Your task to perform on an android device: Add dell xps to the cart on ebay.com Image 0: 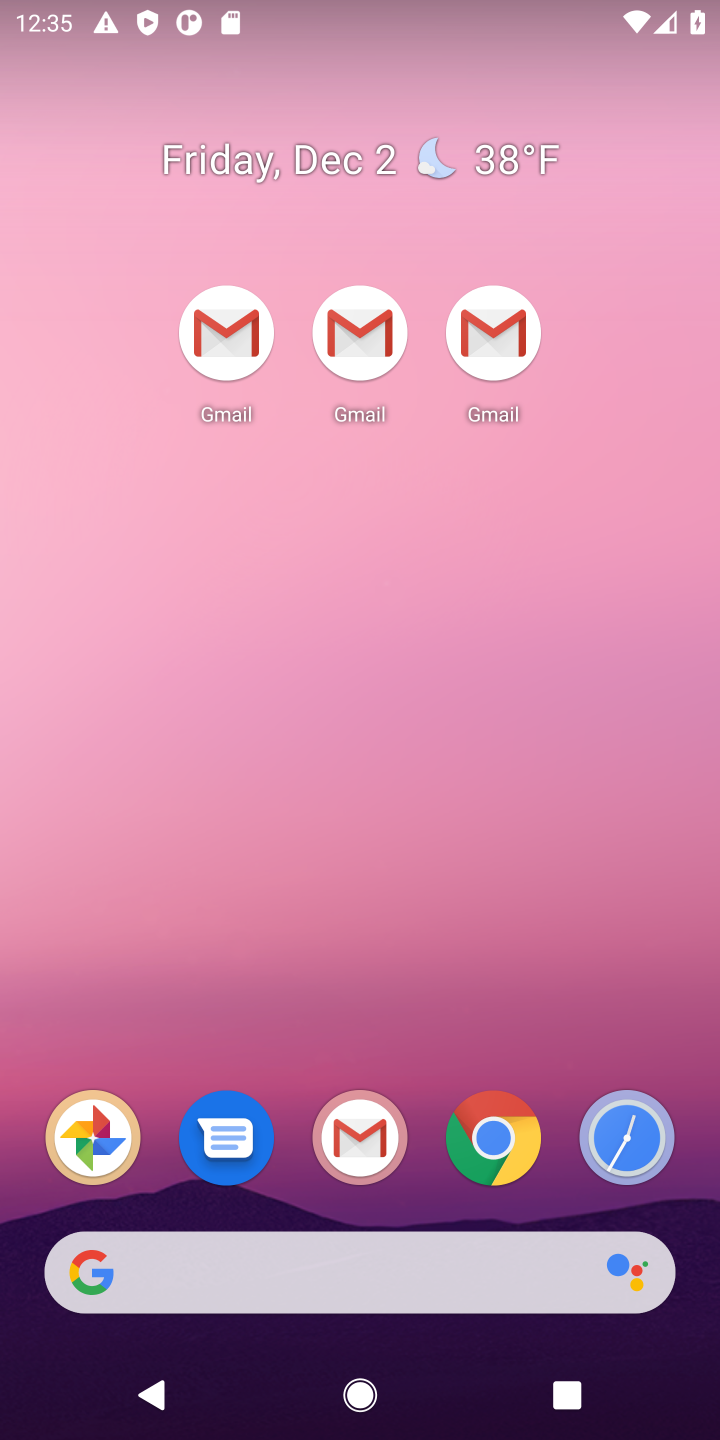
Step 0: drag from (459, 692) to (415, 121)
Your task to perform on an android device: Add dell xps to the cart on ebay.com Image 1: 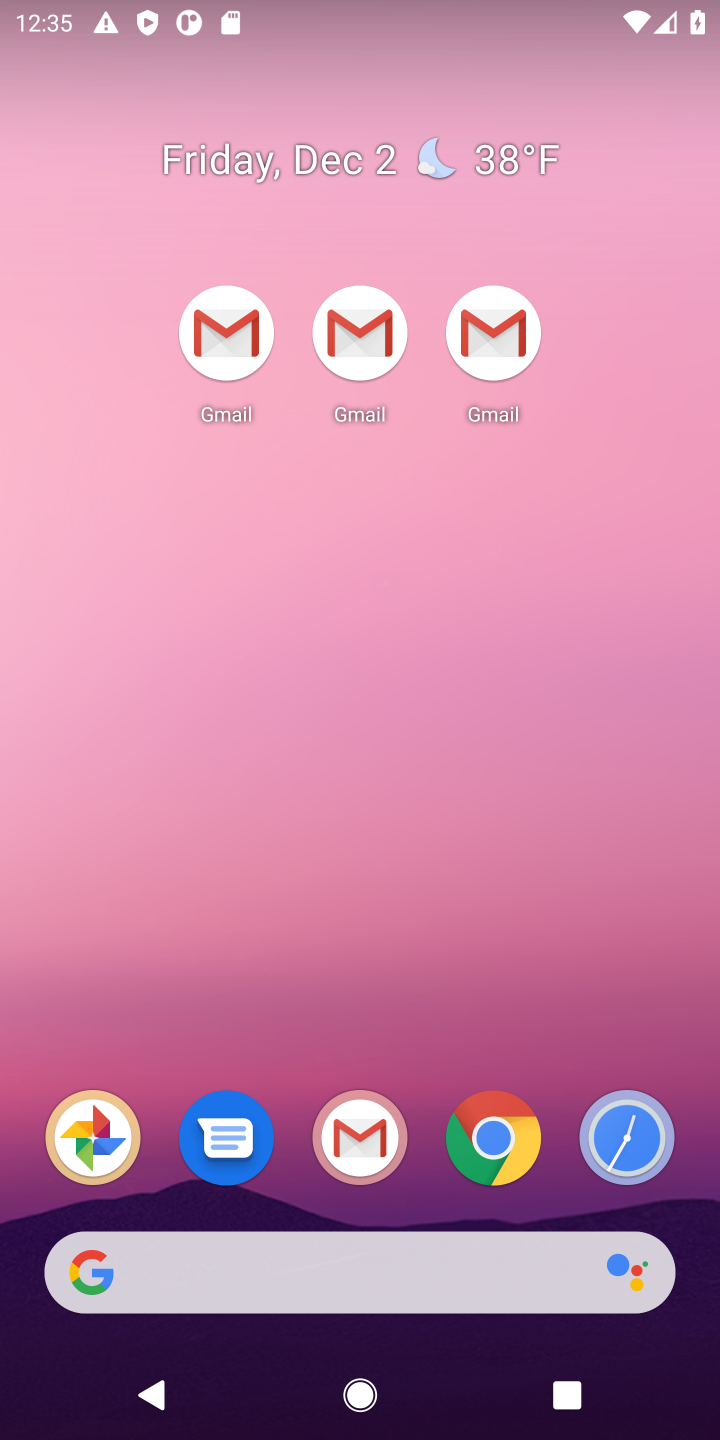
Step 1: drag from (432, 1191) to (432, 145)
Your task to perform on an android device: Add dell xps to the cart on ebay.com Image 2: 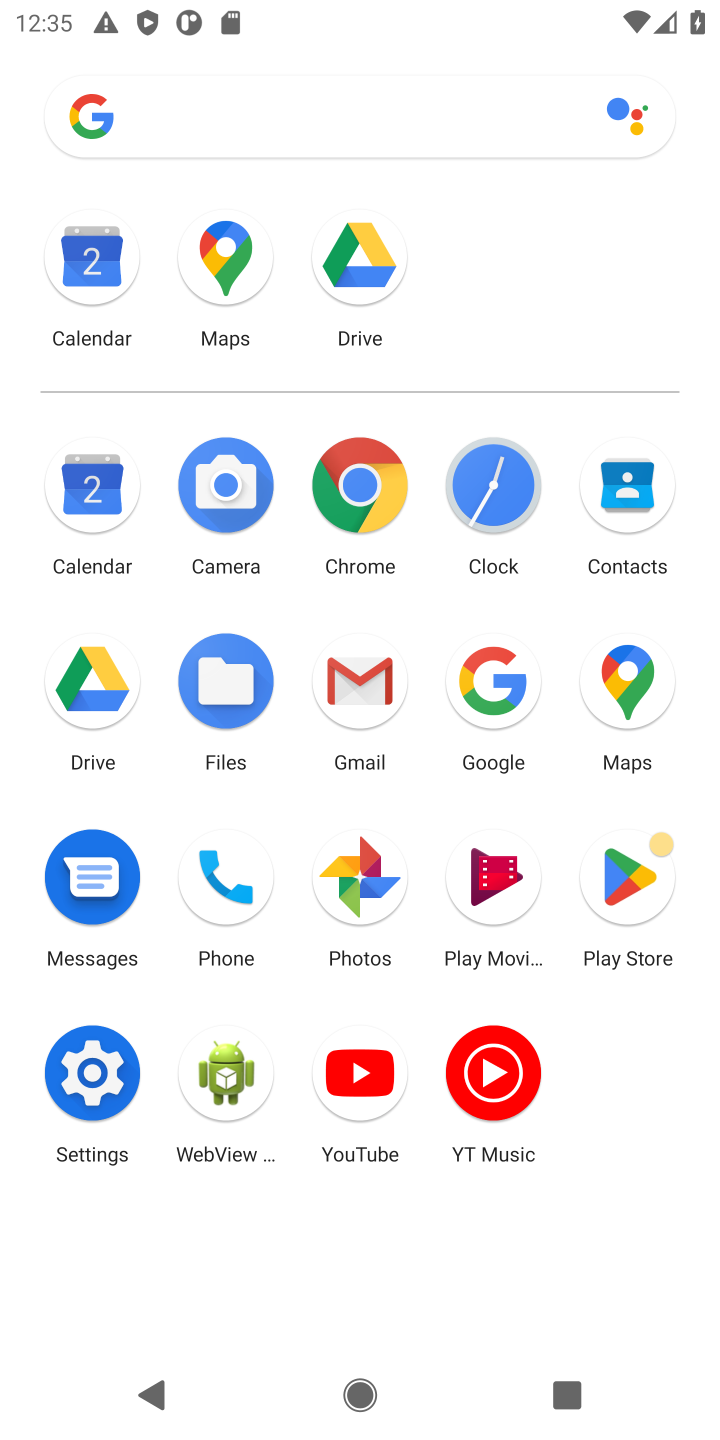
Step 2: click (498, 691)
Your task to perform on an android device: Add dell xps to the cart on ebay.com Image 3: 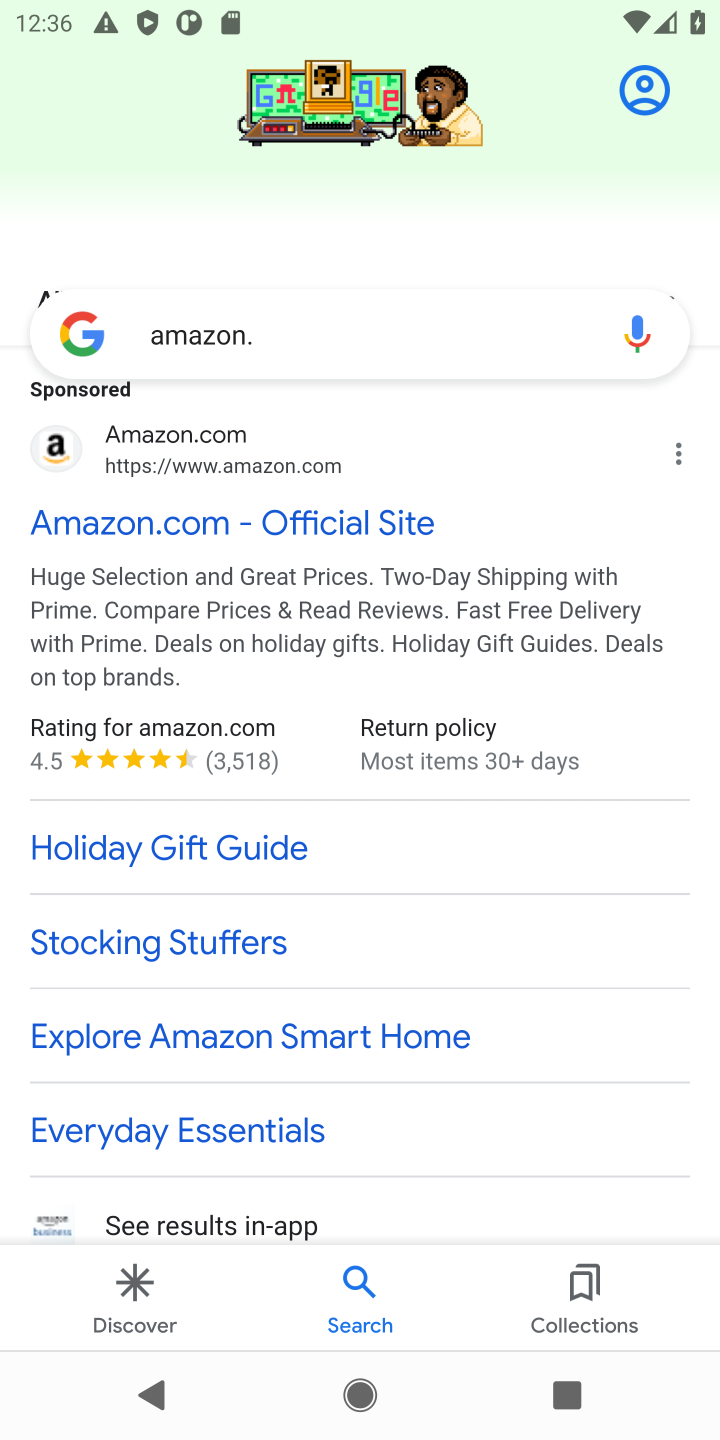
Step 3: click (339, 344)
Your task to perform on an android device: Add dell xps to the cart on ebay.com Image 4: 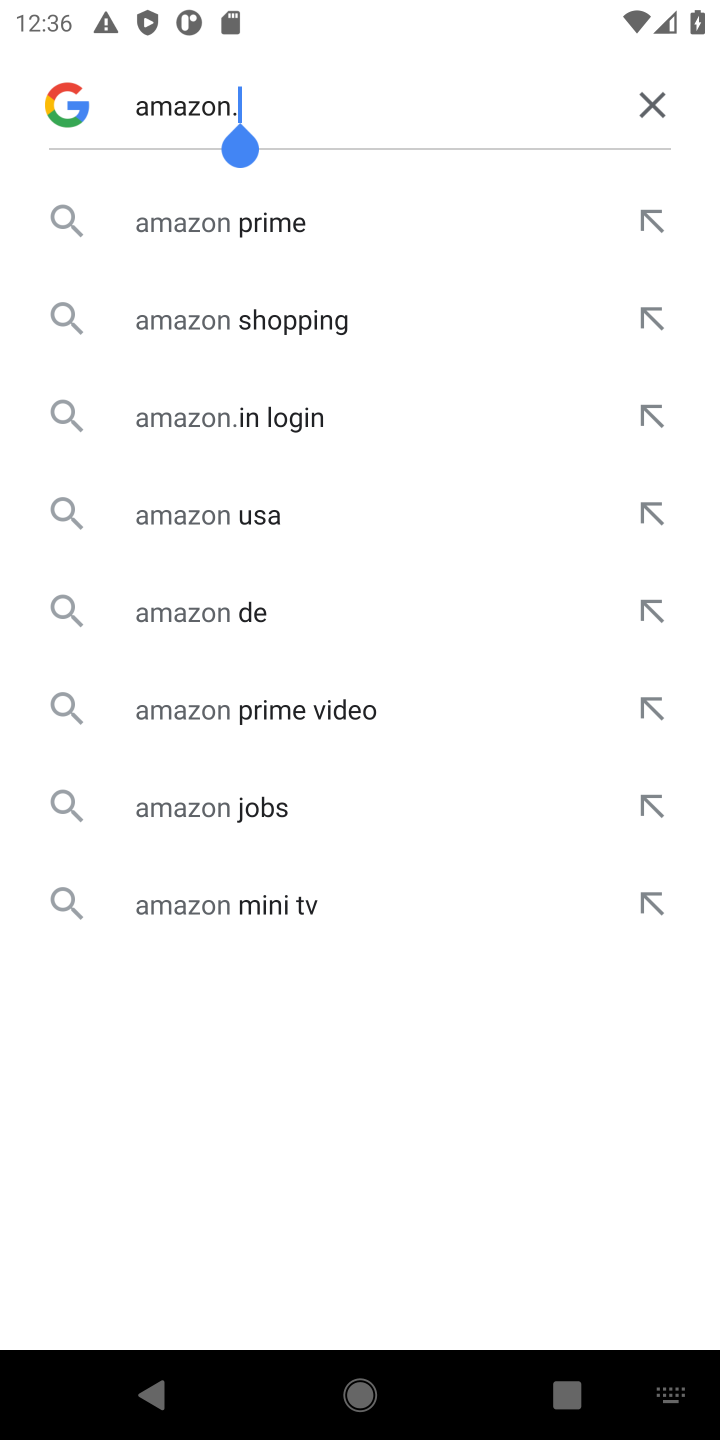
Step 4: click (668, 111)
Your task to perform on an android device: Add dell xps to the cart on ebay.com Image 5: 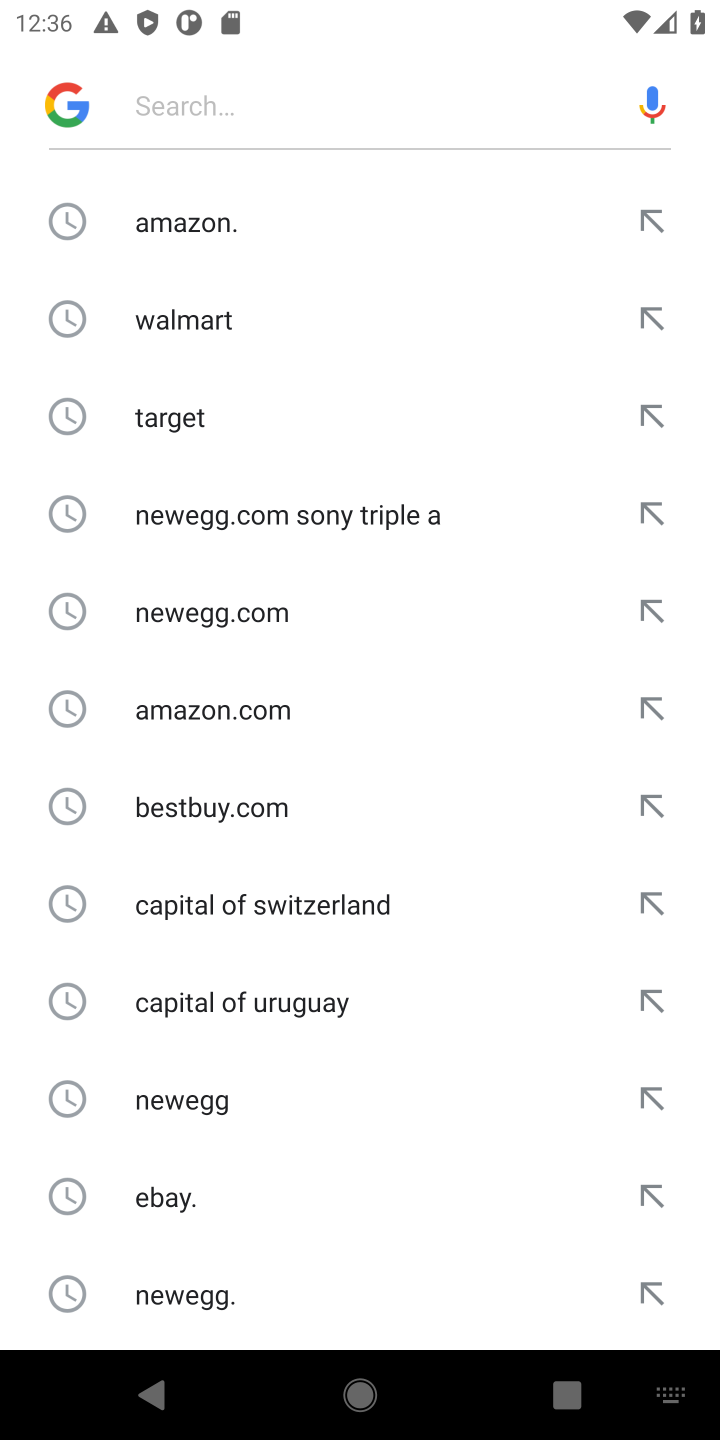
Step 5: type "ebay.com"
Your task to perform on an android device: Add dell xps to the cart on ebay.com Image 6: 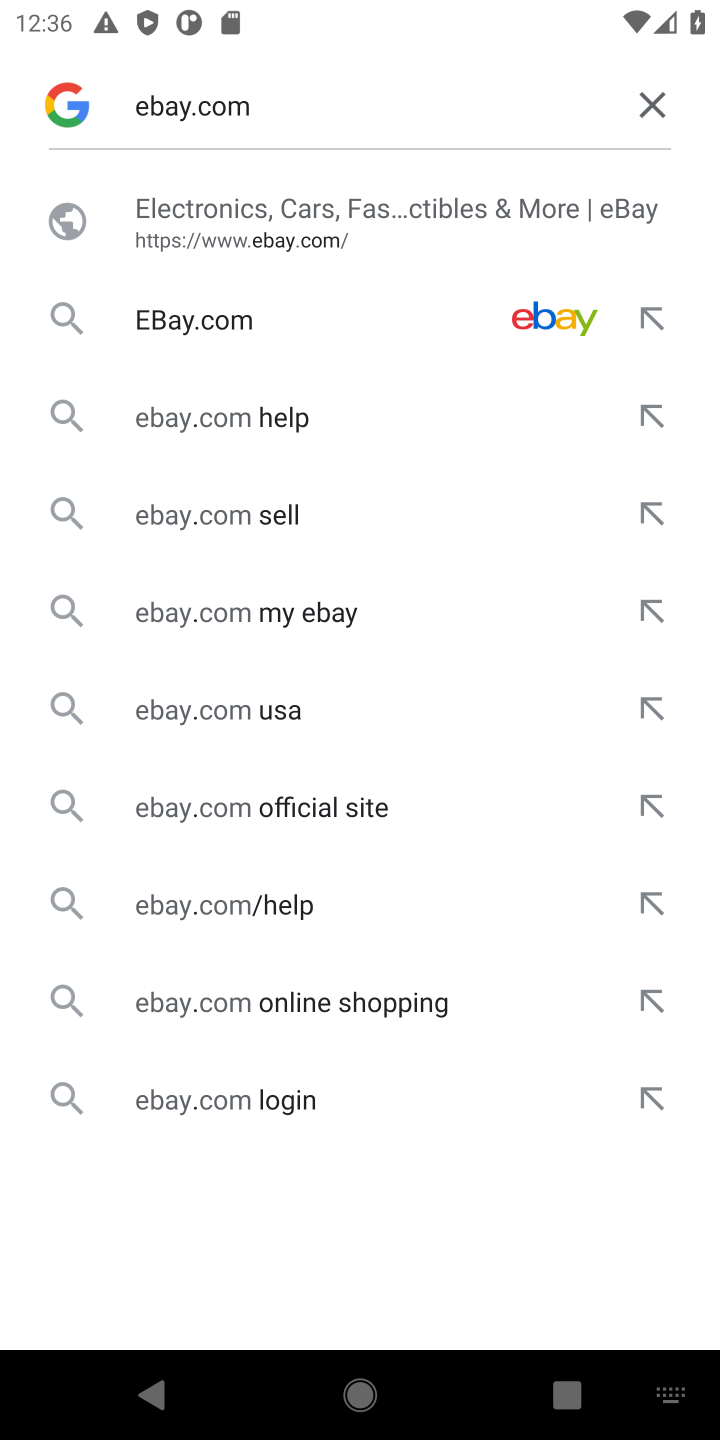
Step 6: click (384, 228)
Your task to perform on an android device: Add dell xps to the cart on ebay.com Image 7: 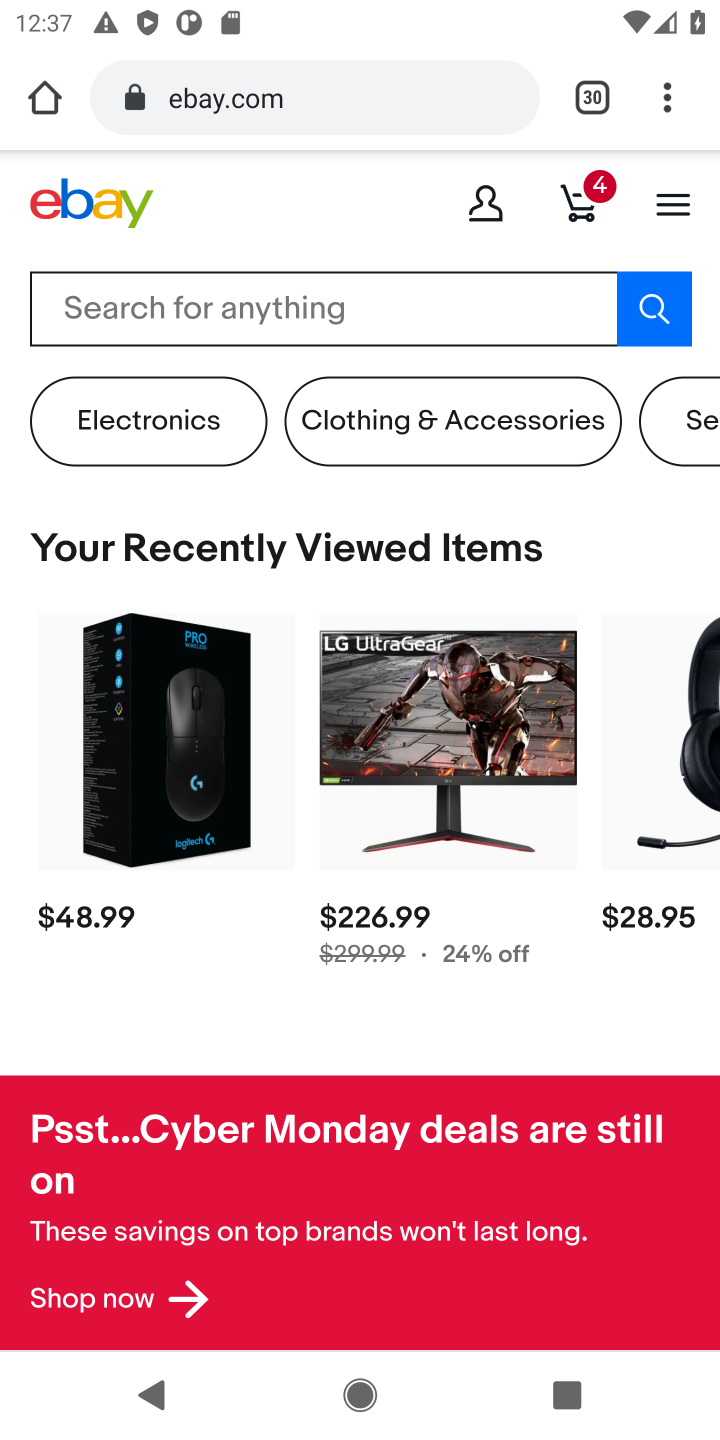
Step 7: click (329, 307)
Your task to perform on an android device: Add dell xps to the cart on ebay.com Image 8: 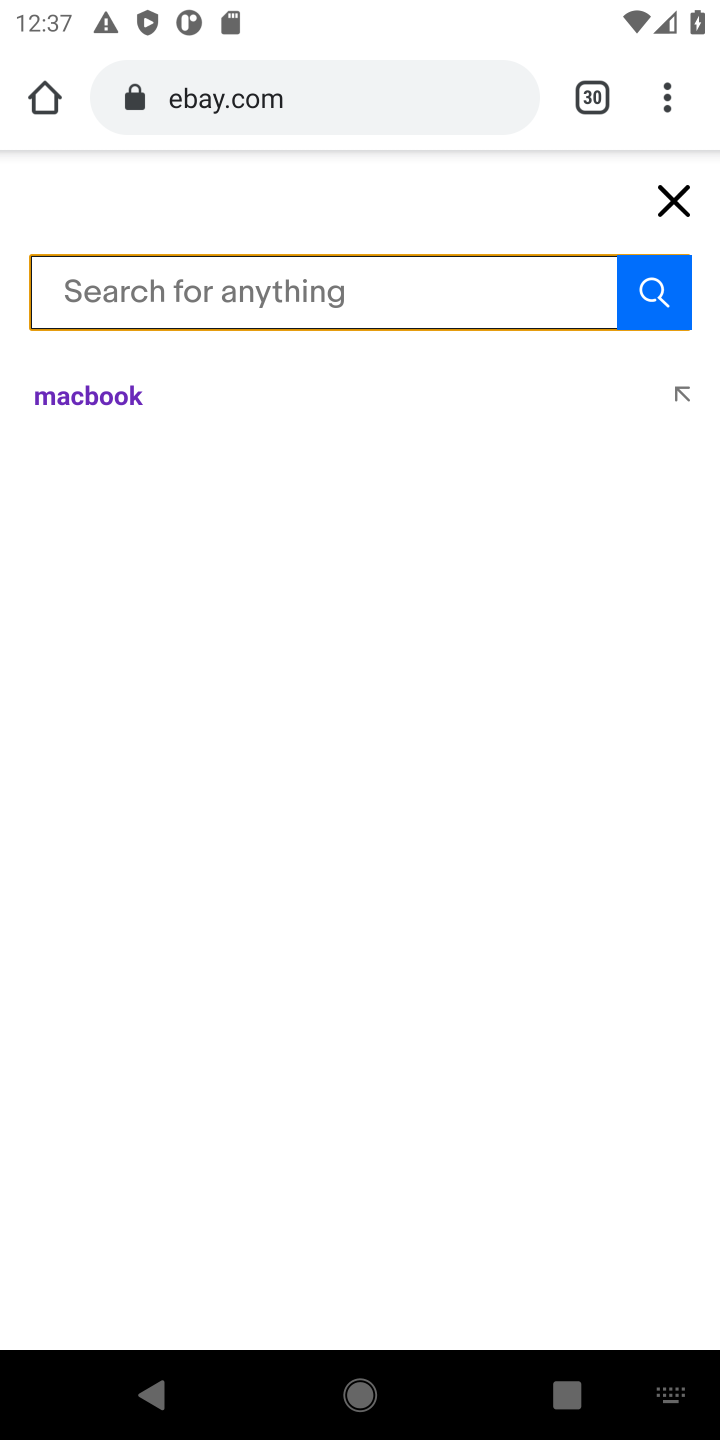
Step 8: type "dell xps"
Your task to perform on an android device: Add dell xps to the cart on ebay.com Image 9: 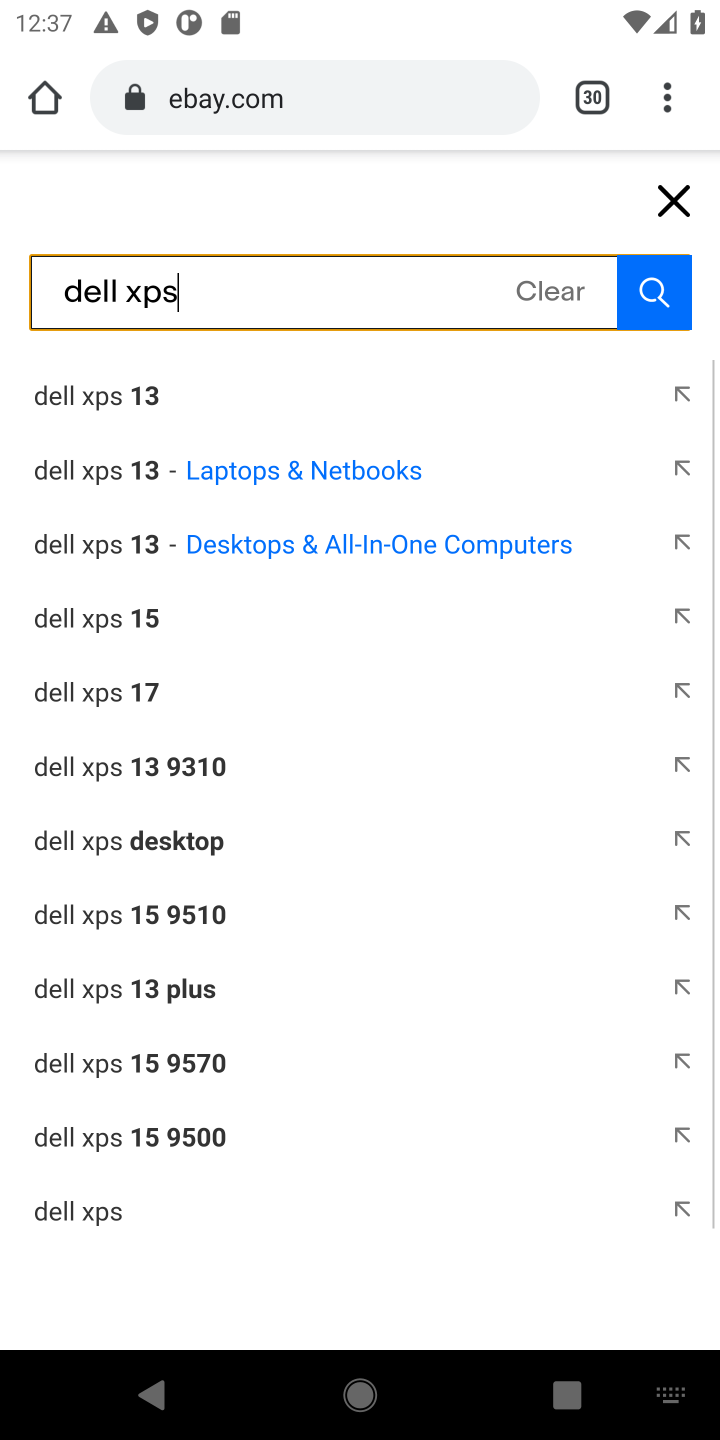
Step 9: type ""
Your task to perform on an android device: Add dell xps to the cart on ebay.com Image 10: 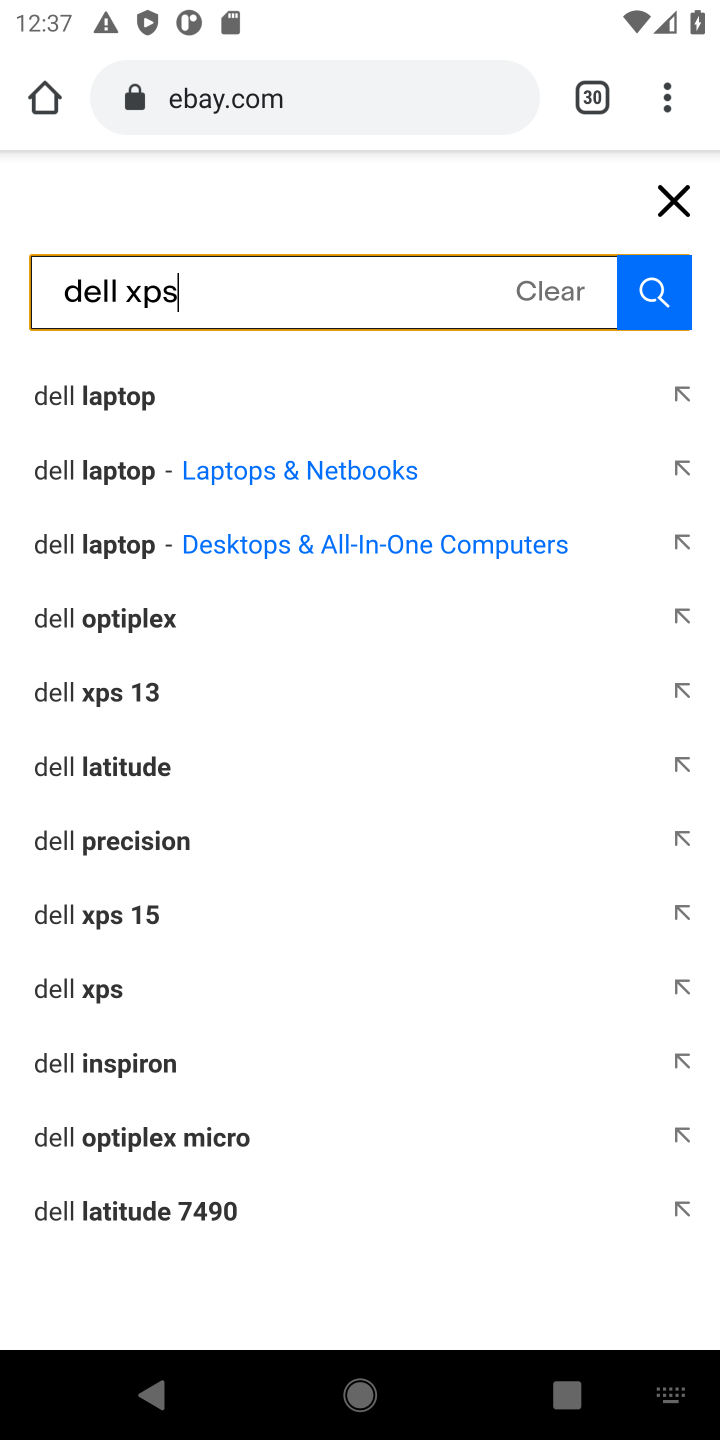
Step 10: click (137, 978)
Your task to perform on an android device: Add dell xps to the cart on ebay.com Image 11: 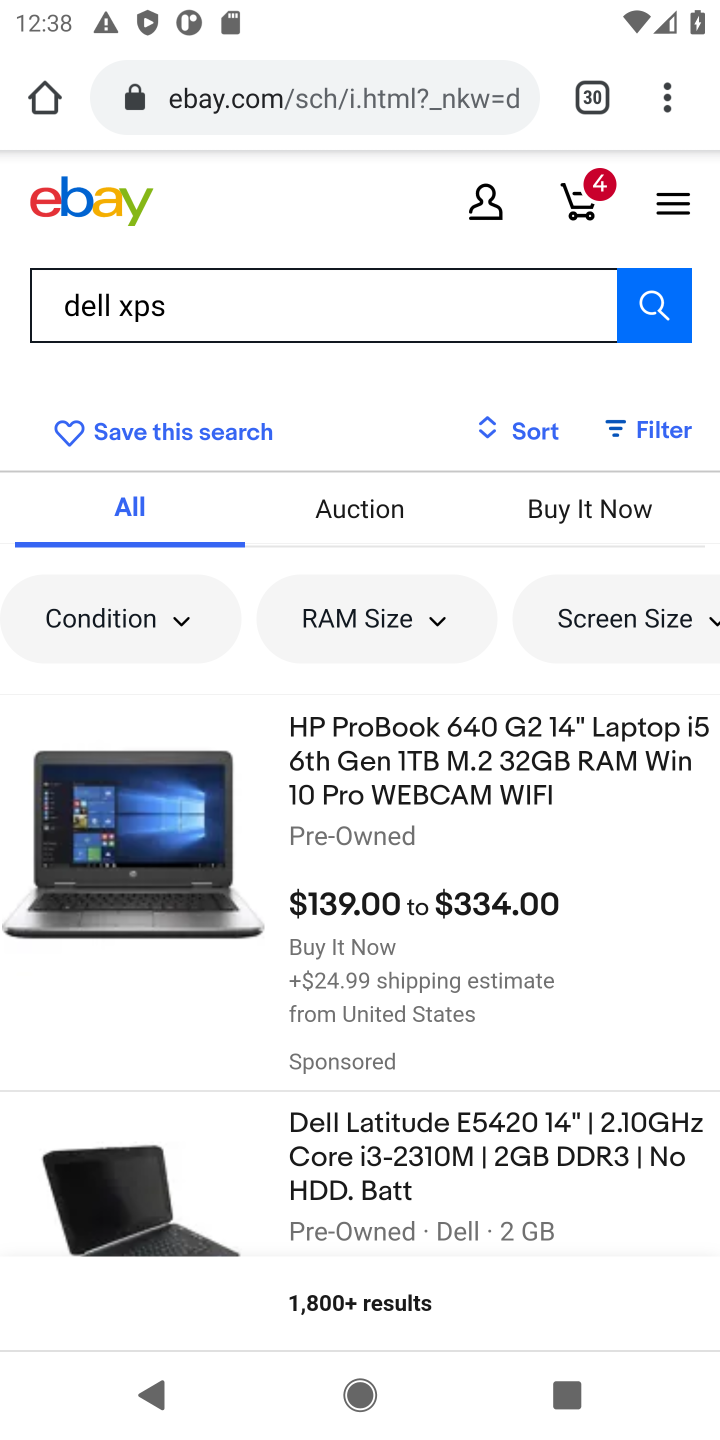
Step 11: drag from (428, 995) to (547, 371)
Your task to perform on an android device: Add dell xps to the cart on ebay.com Image 12: 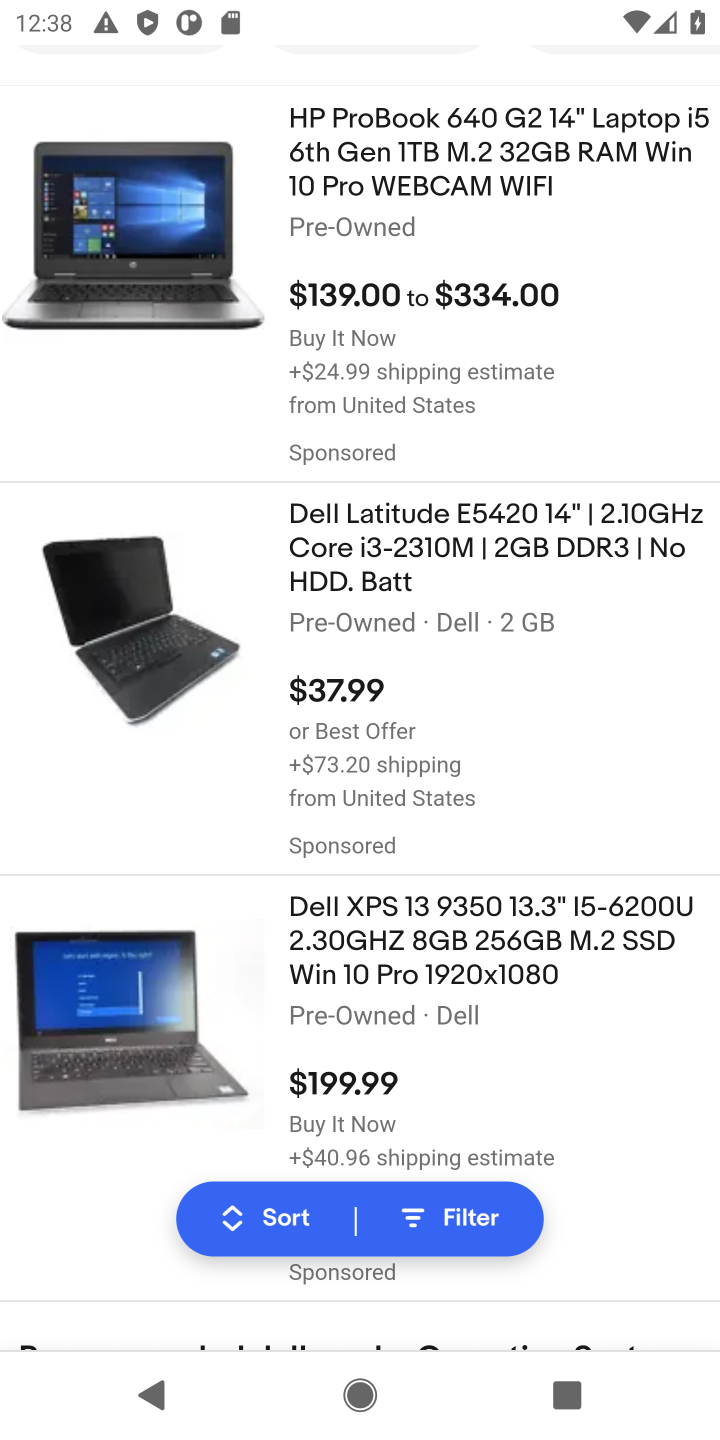
Step 12: drag from (413, 914) to (417, 721)
Your task to perform on an android device: Add dell xps to the cart on ebay.com Image 13: 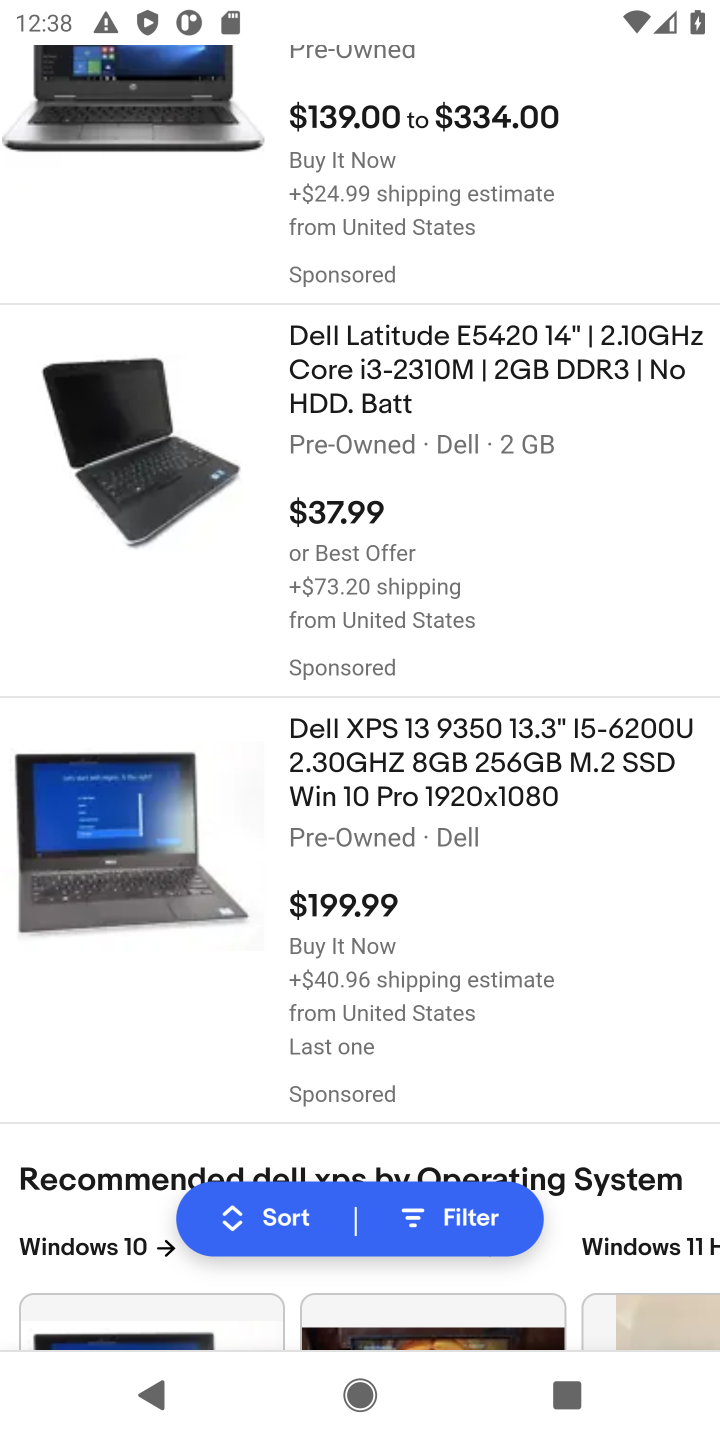
Step 13: click (386, 785)
Your task to perform on an android device: Add dell xps to the cart on ebay.com Image 14: 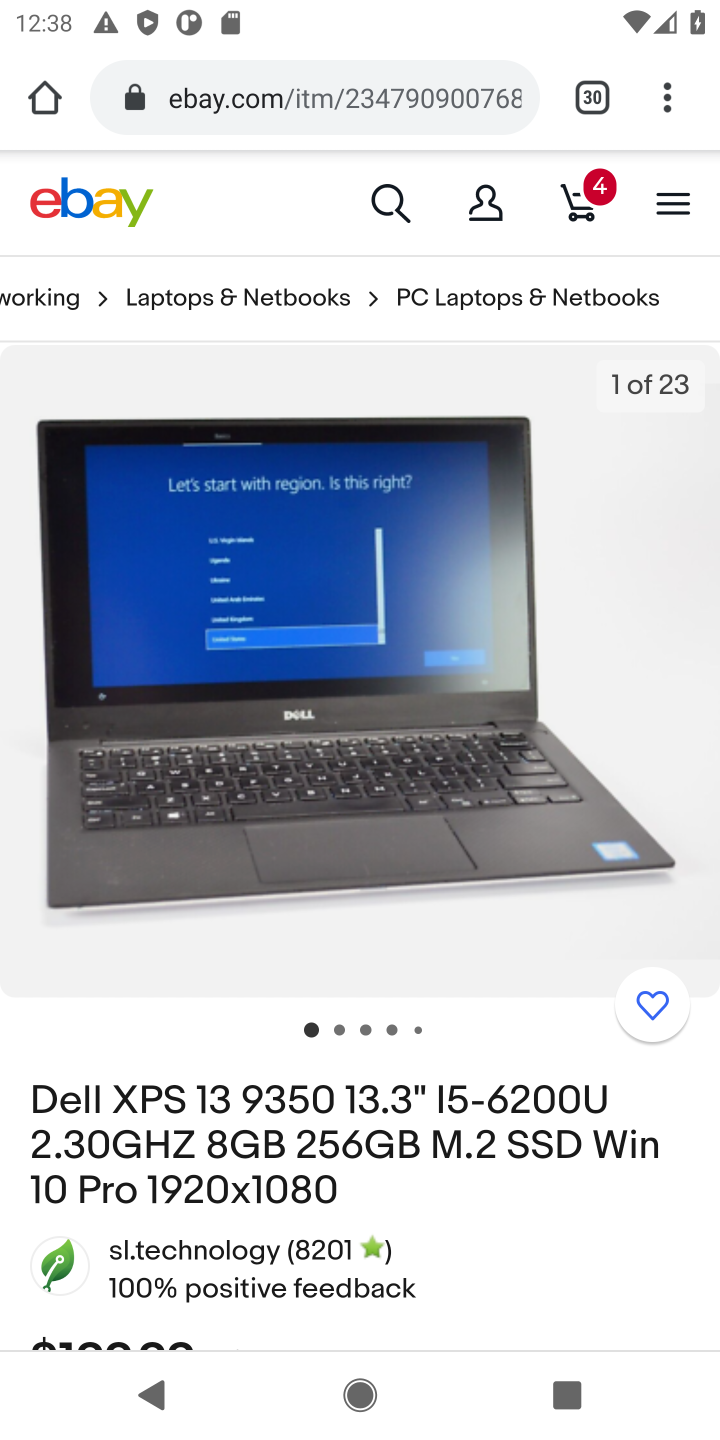
Step 14: drag from (336, 1153) to (429, 771)
Your task to perform on an android device: Add dell xps to the cart on ebay.com Image 15: 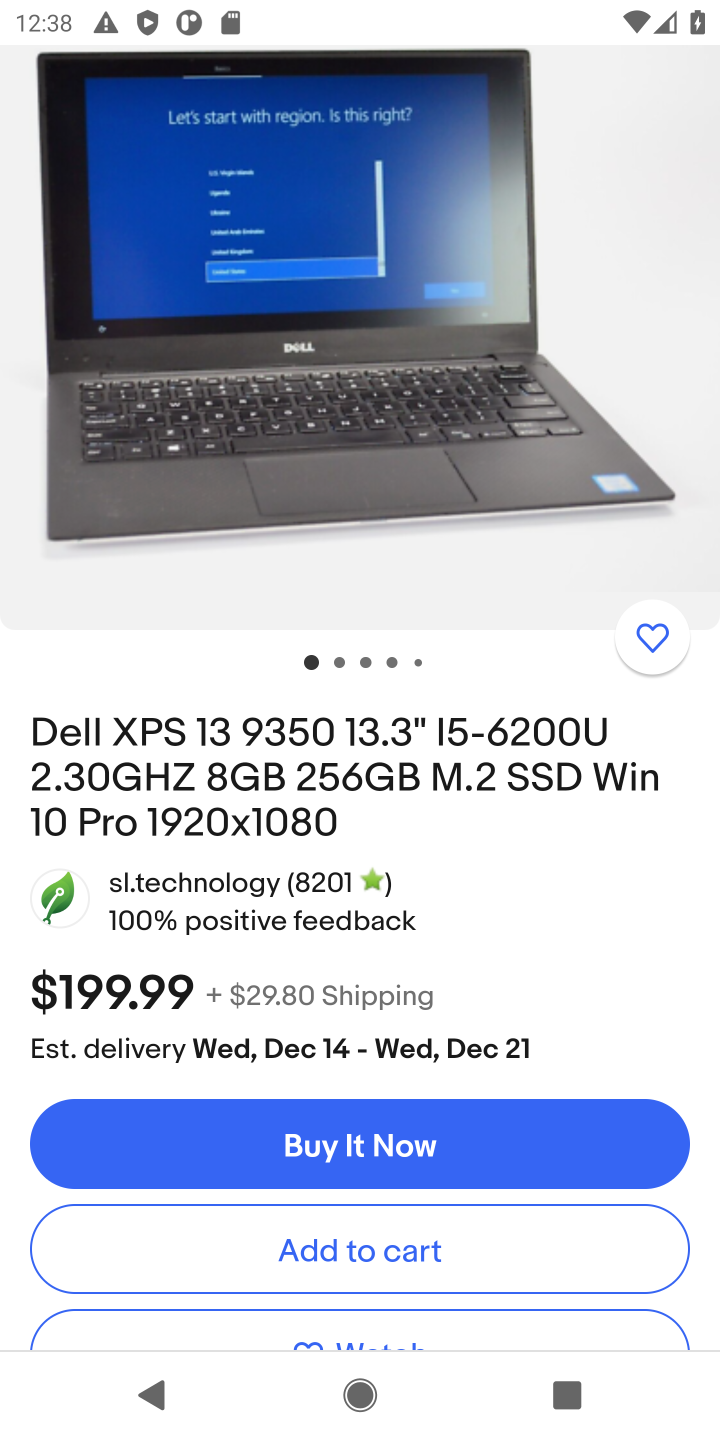
Step 15: click (357, 1257)
Your task to perform on an android device: Add dell xps to the cart on ebay.com Image 16: 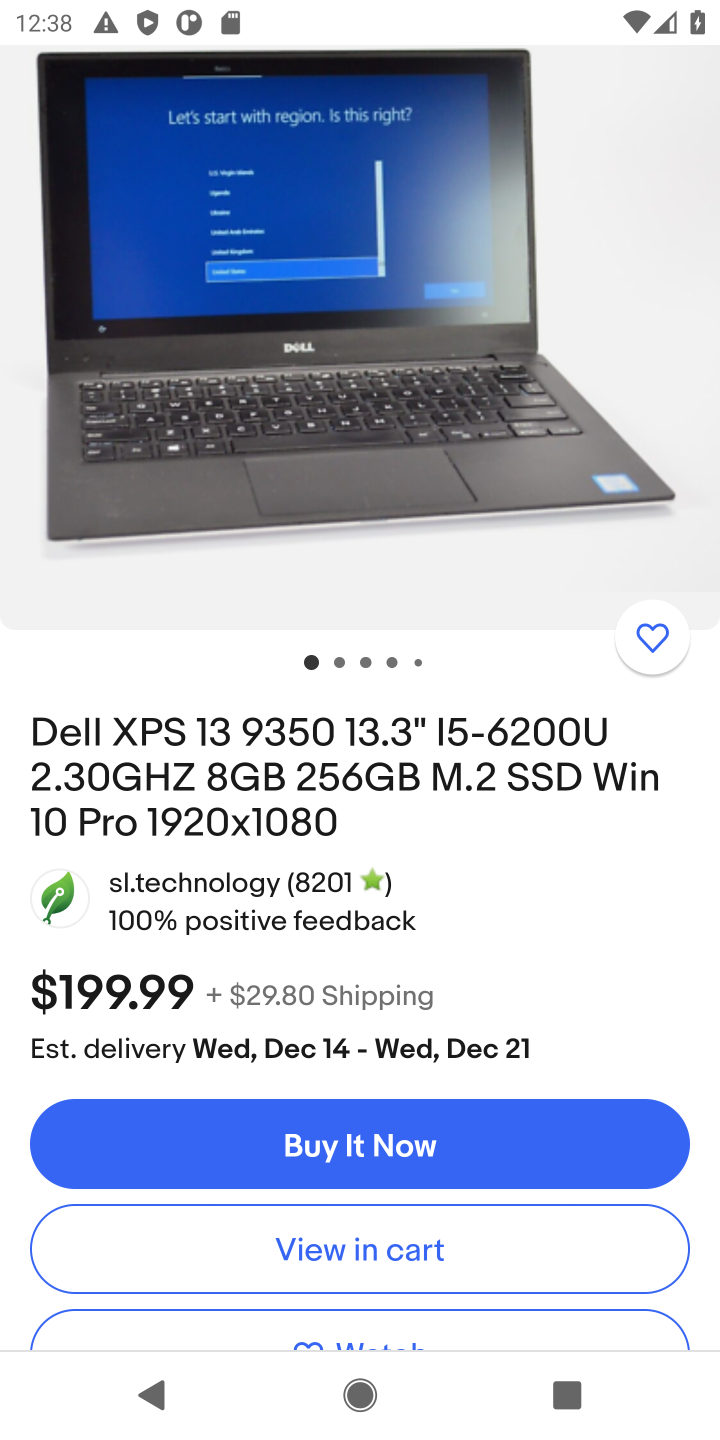
Step 16: task complete